Your task to perform on an android device: move an email to a new category in the gmail app Image 0: 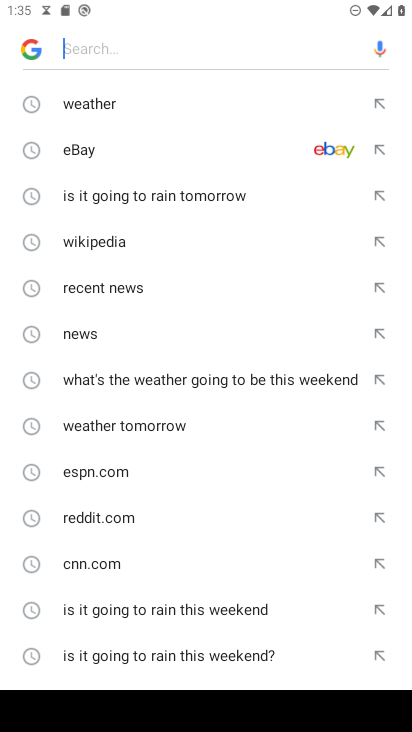
Step 0: press home button
Your task to perform on an android device: move an email to a new category in the gmail app Image 1: 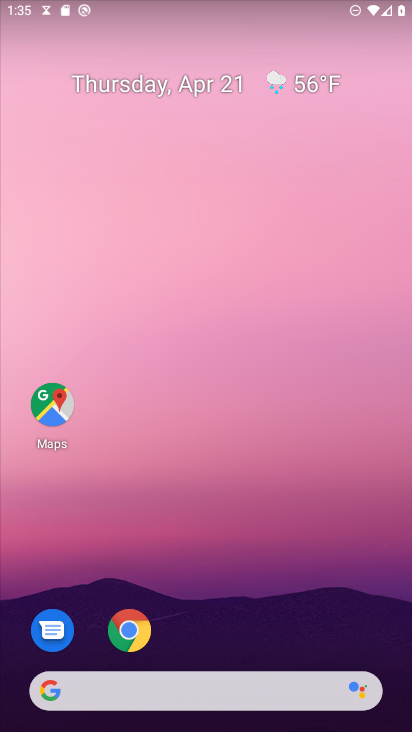
Step 1: drag from (217, 688) to (232, 147)
Your task to perform on an android device: move an email to a new category in the gmail app Image 2: 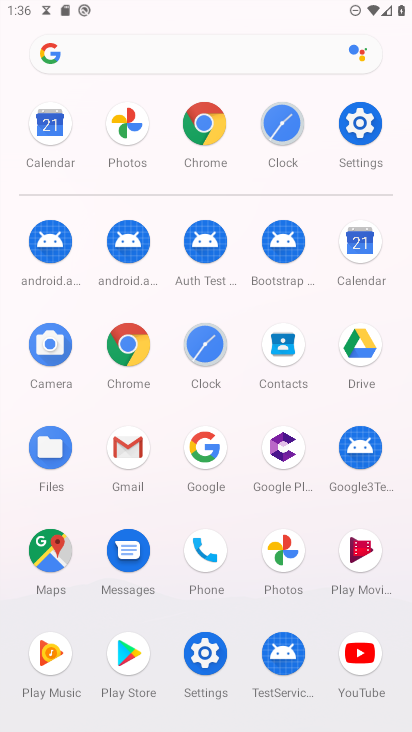
Step 2: click (136, 452)
Your task to perform on an android device: move an email to a new category in the gmail app Image 3: 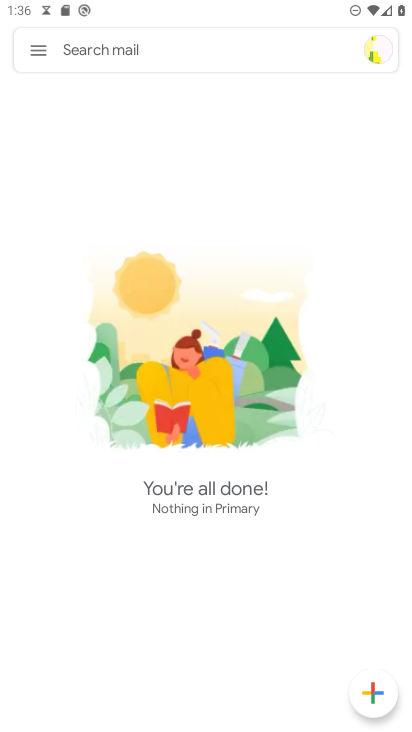
Step 3: task complete